Your task to perform on an android device: Open my contact list Image 0: 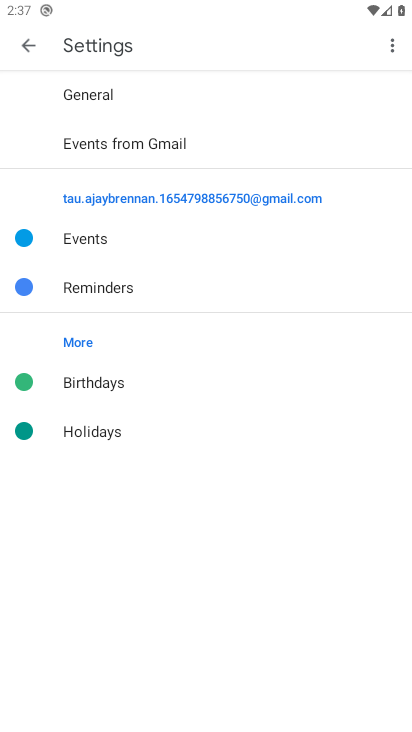
Step 0: press home button
Your task to perform on an android device: Open my contact list Image 1: 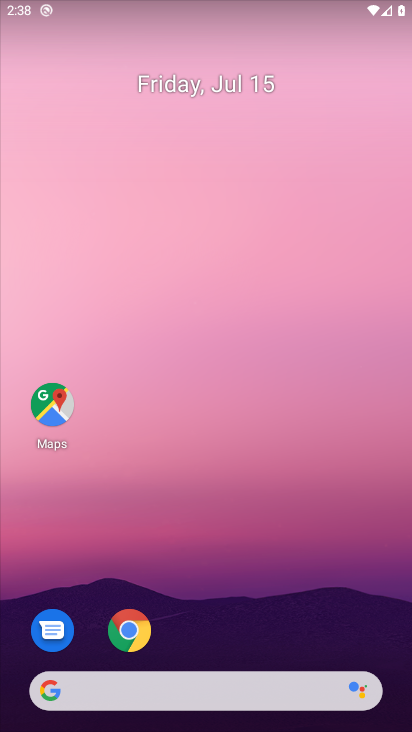
Step 1: drag from (270, 608) to (268, 80)
Your task to perform on an android device: Open my contact list Image 2: 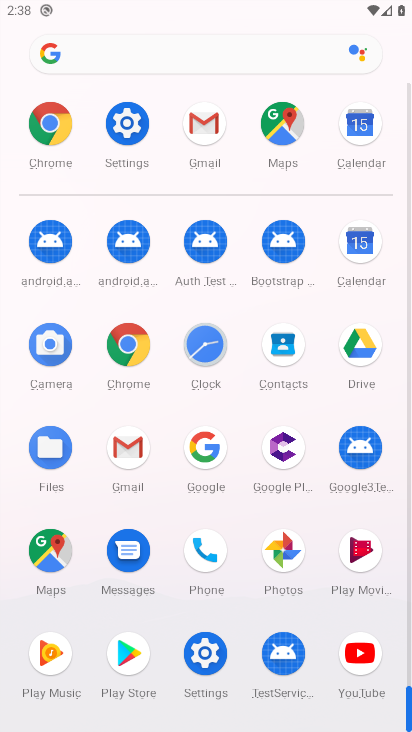
Step 2: click (274, 348)
Your task to perform on an android device: Open my contact list Image 3: 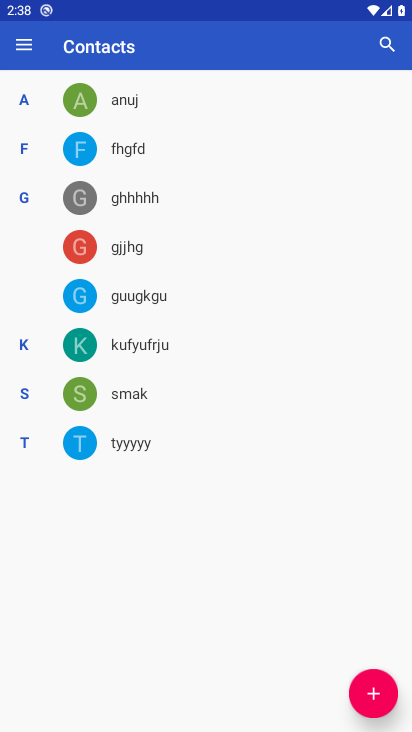
Step 3: task complete